Your task to perform on an android device: toggle show notifications on the lock screen Image 0: 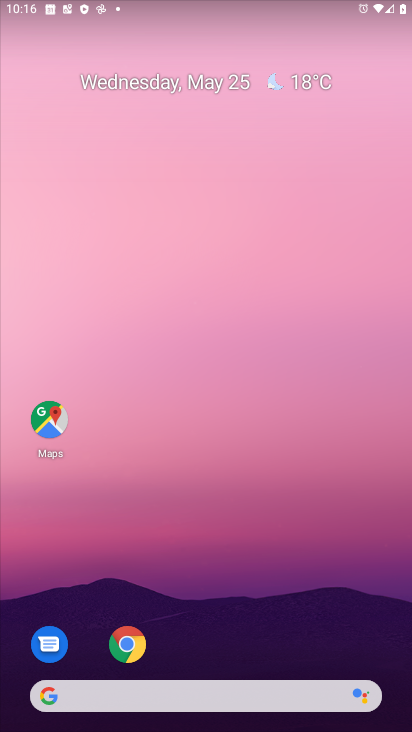
Step 0: press home button
Your task to perform on an android device: toggle show notifications on the lock screen Image 1: 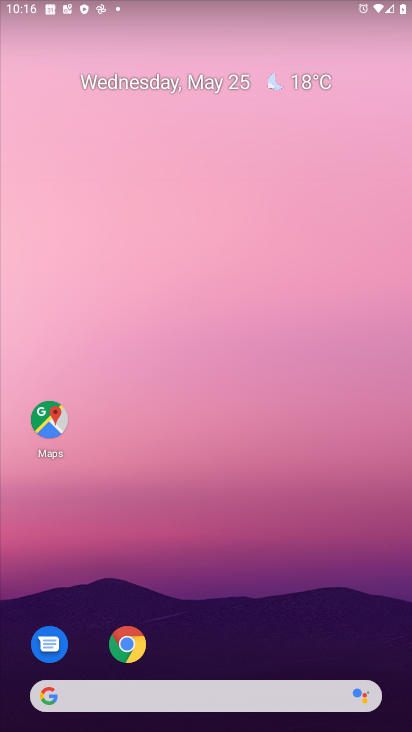
Step 1: drag from (214, 670) to (211, 1)
Your task to perform on an android device: toggle show notifications on the lock screen Image 2: 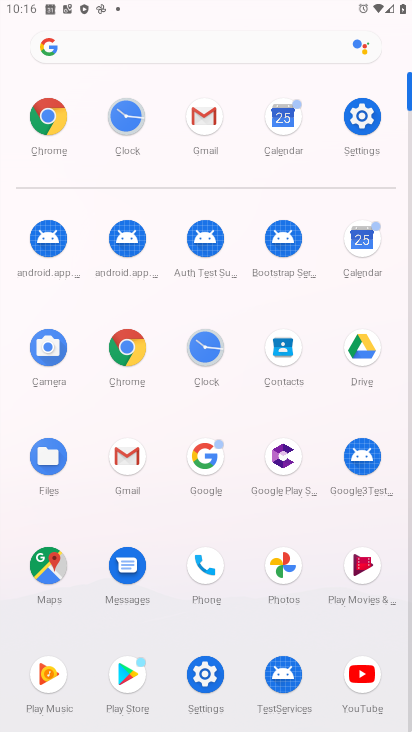
Step 2: click (359, 108)
Your task to perform on an android device: toggle show notifications on the lock screen Image 3: 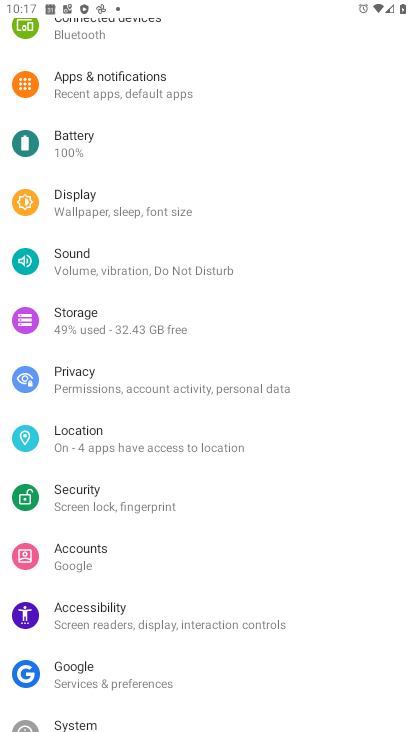
Step 3: click (102, 85)
Your task to perform on an android device: toggle show notifications on the lock screen Image 4: 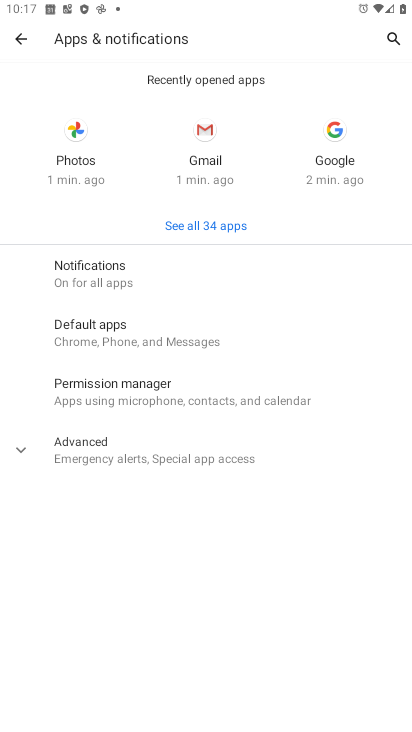
Step 4: click (141, 267)
Your task to perform on an android device: toggle show notifications on the lock screen Image 5: 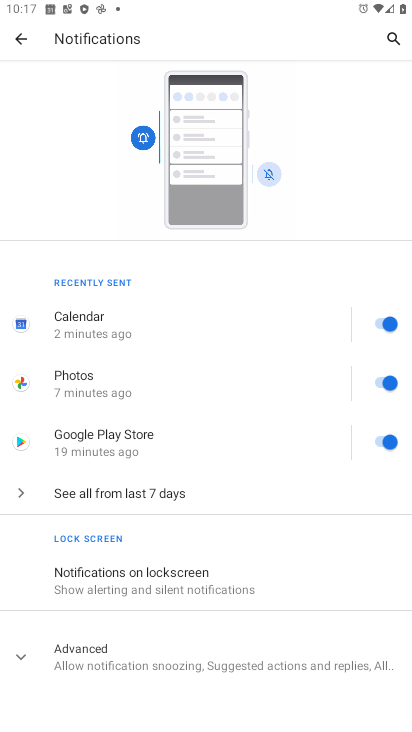
Step 5: click (176, 580)
Your task to perform on an android device: toggle show notifications on the lock screen Image 6: 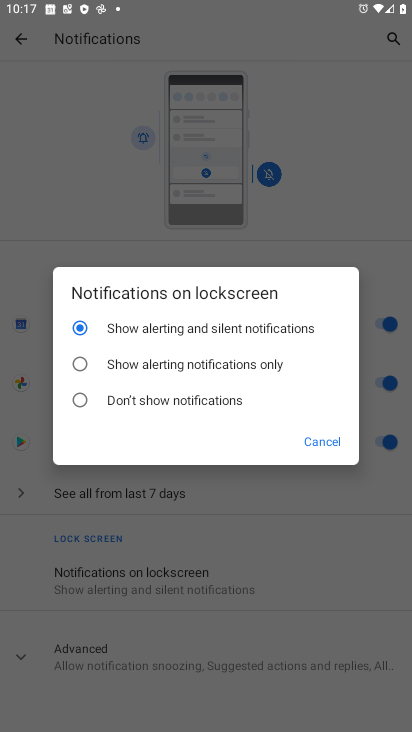
Step 6: click (79, 365)
Your task to perform on an android device: toggle show notifications on the lock screen Image 7: 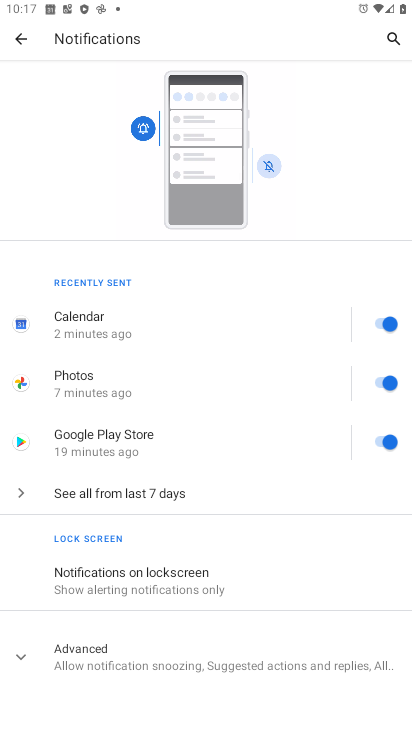
Step 7: task complete